Your task to perform on an android device: Open the phone app and click the voicemail tab. Image 0: 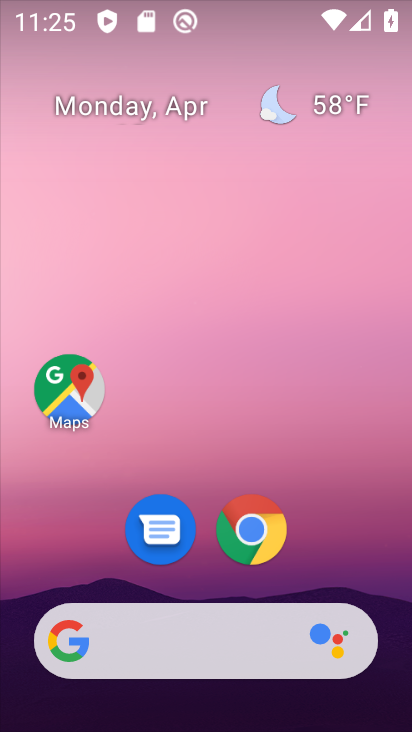
Step 0: drag from (340, 585) to (267, 36)
Your task to perform on an android device: Open the phone app and click the voicemail tab. Image 1: 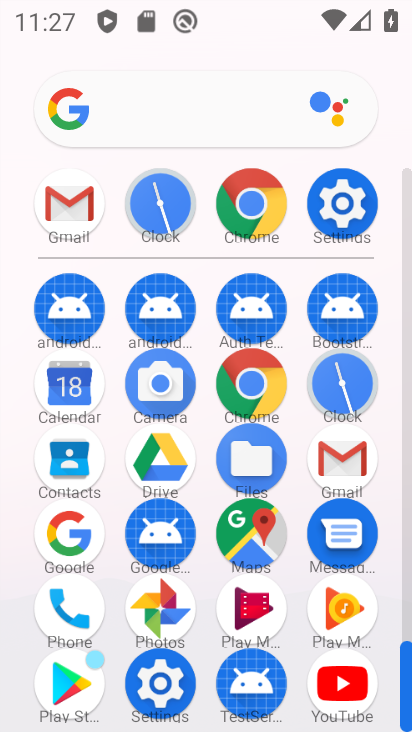
Step 1: click (60, 623)
Your task to perform on an android device: Open the phone app and click the voicemail tab. Image 2: 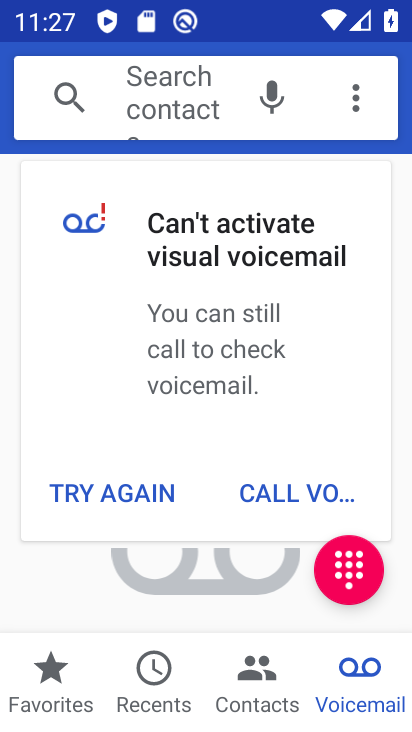
Step 2: task complete